Your task to perform on an android device: empty trash in the gmail app Image 0: 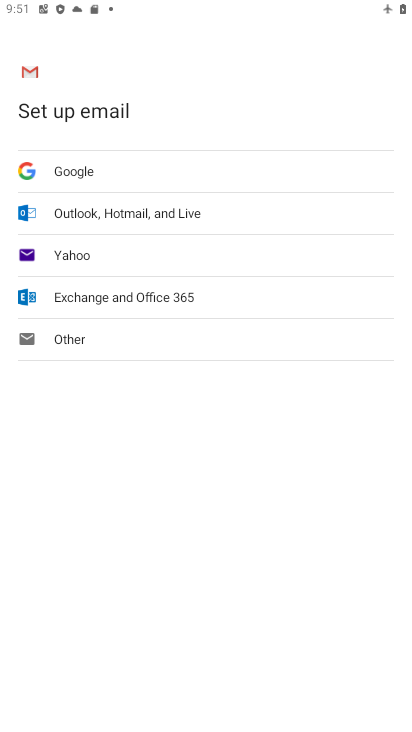
Step 0: press home button
Your task to perform on an android device: empty trash in the gmail app Image 1: 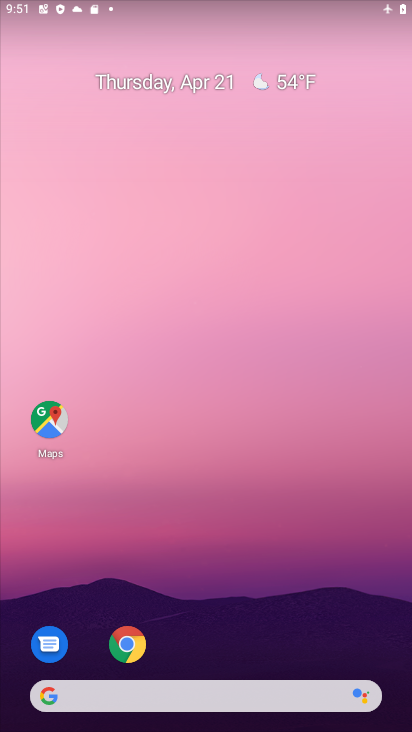
Step 1: drag from (191, 544) to (88, 84)
Your task to perform on an android device: empty trash in the gmail app Image 2: 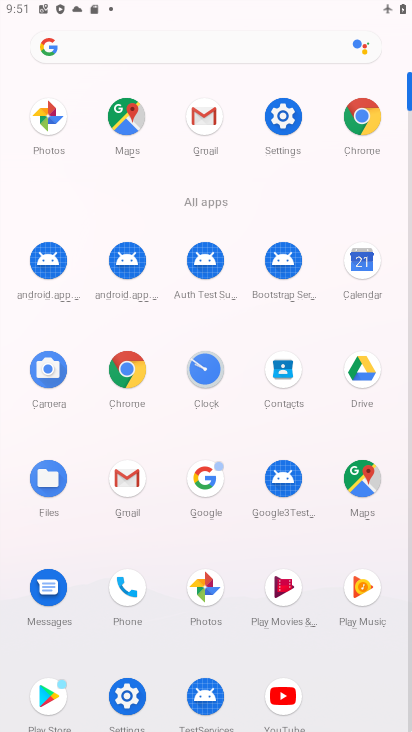
Step 2: click (212, 126)
Your task to perform on an android device: empty trash in the gmail app Image 3: 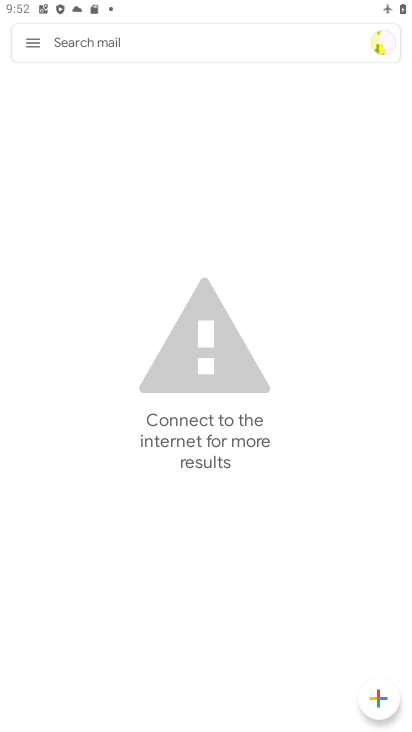
Step 3: click (31, 43)
Your task to perform on an android device: empty trash in the gmail app Image 4: 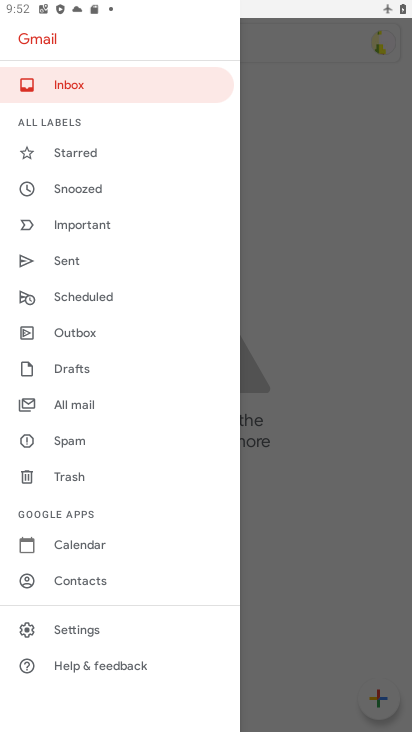
Step 4: click (70, 477)
Your task to perform on an android device: empty trash in the gmail app Image 5: 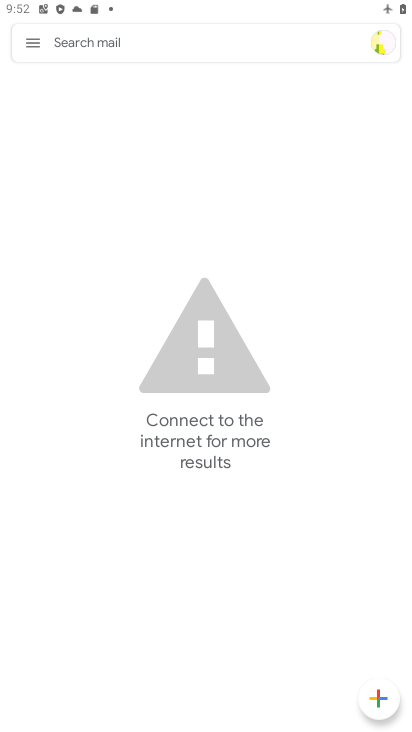
Step 5: task complete